Your task to perform on an android device: Open Google Chrome Image 0: 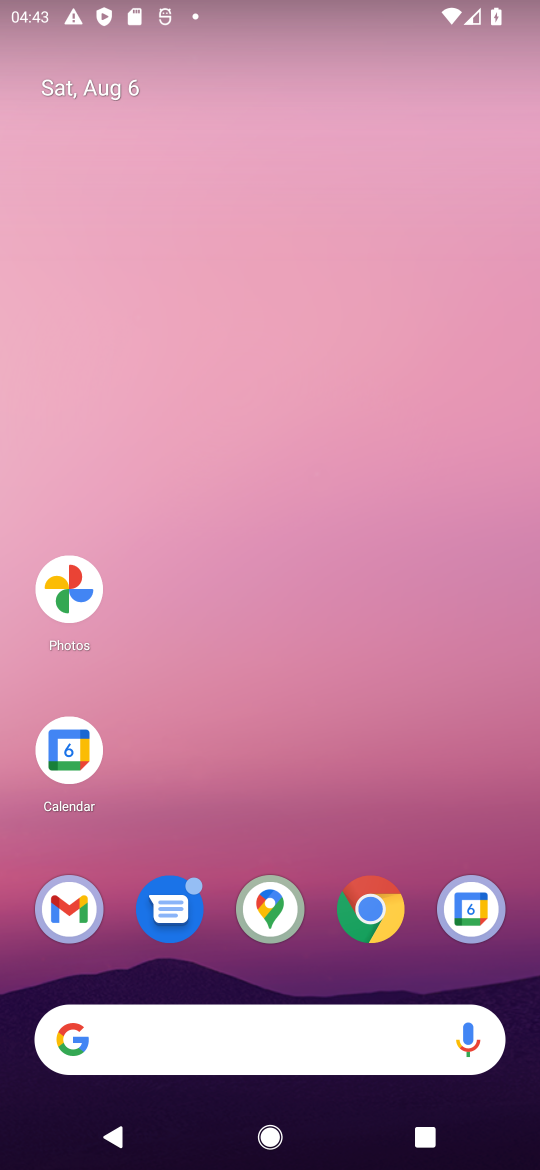
Step 0: click (378, 899)
Your task to perform on an android device: Open Google Chrome Image 1: 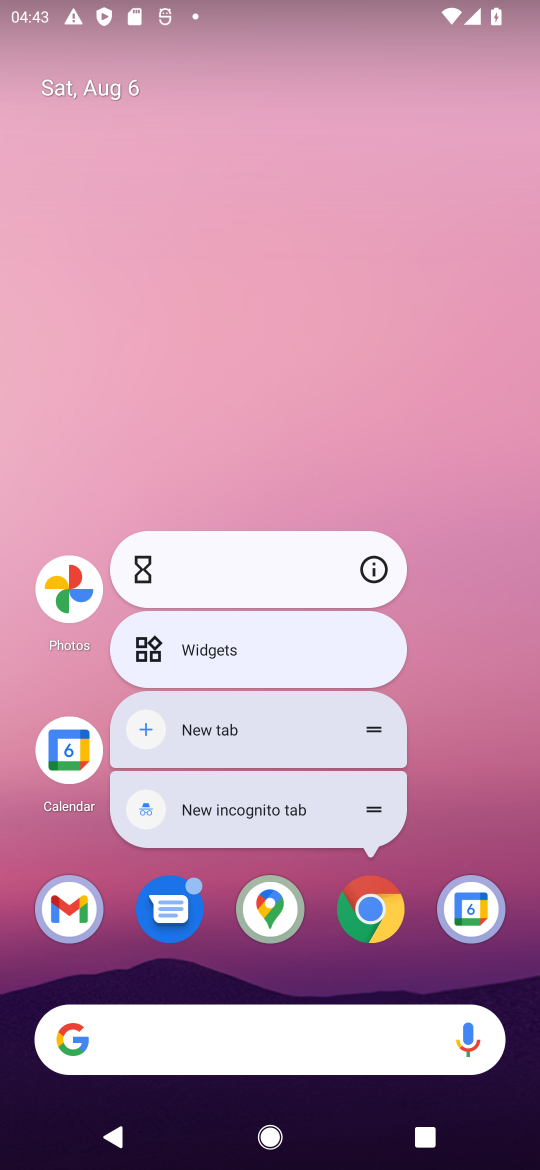
Step 1: click (357, 915)
Your task to perform on an android device: Open Google Chrome Image 2: 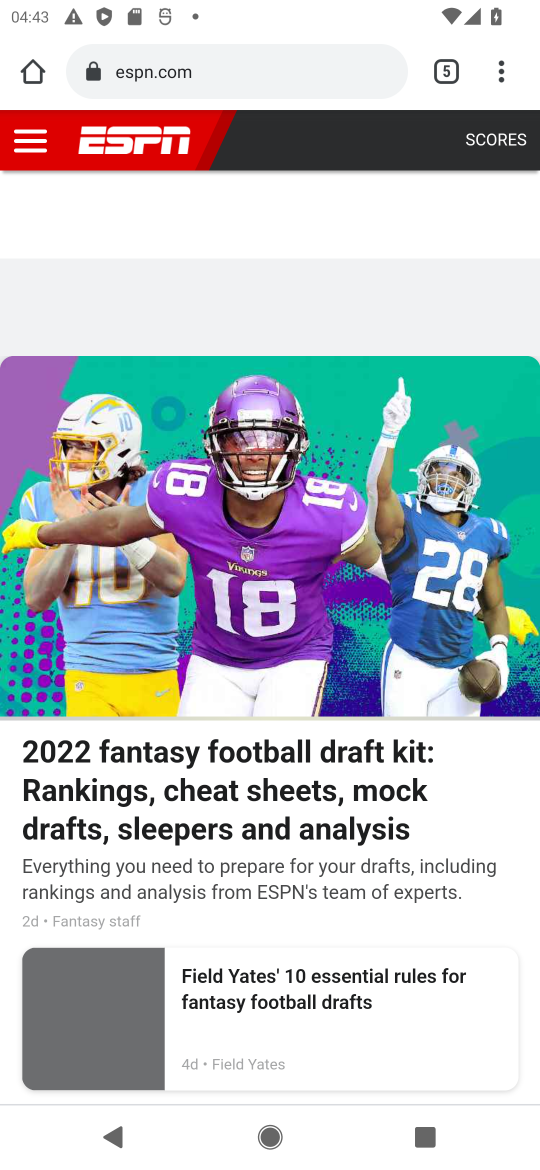
Step 2: task complete